Your task to perform on an android device: Is it going to rain today? Image 0: 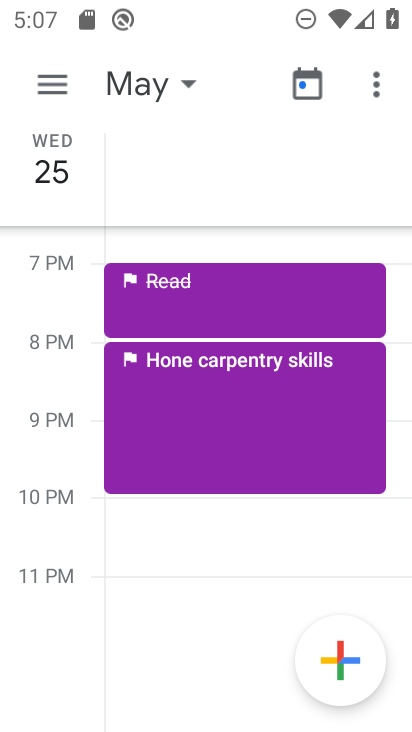
Step 0: press back button
Your task to perform on an android device: Is it going to rain today? Image 1: 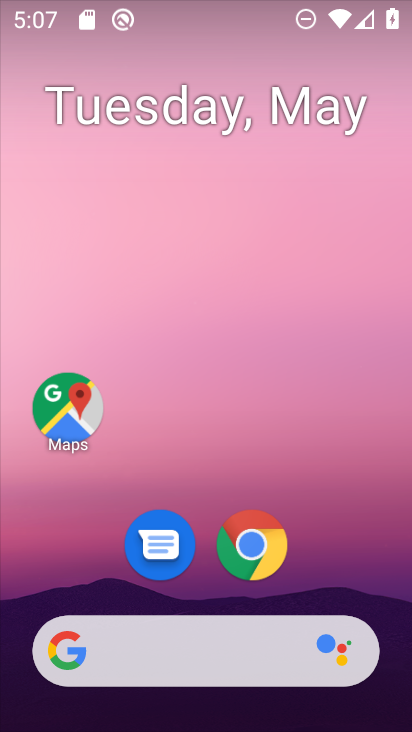
Step 1: drag from (351, 490) to (248, 22)
Your task to perform on an android device: Is it going to rain today? Image 2: 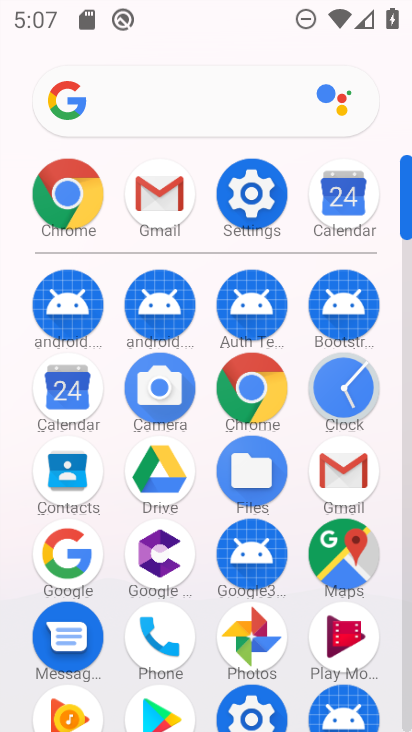
Step 2: drag from (13, 553) to (13, 238)
Your task to perform on an android device: Is it going to rain today? Image 3: 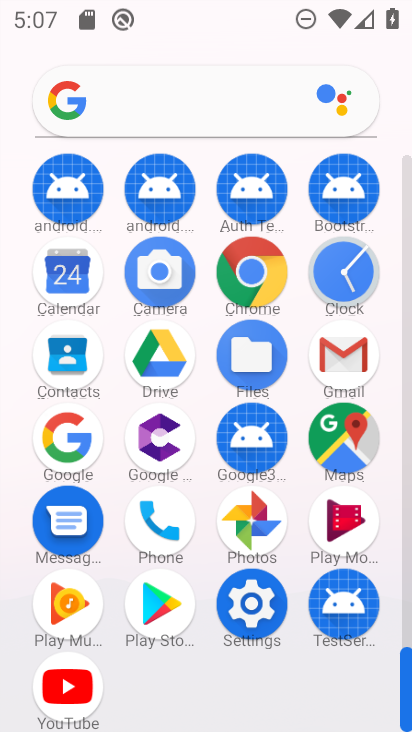
Step 3: click (249, 255)
Your task to perform on an android device: Is it going to rain today? Image 4: 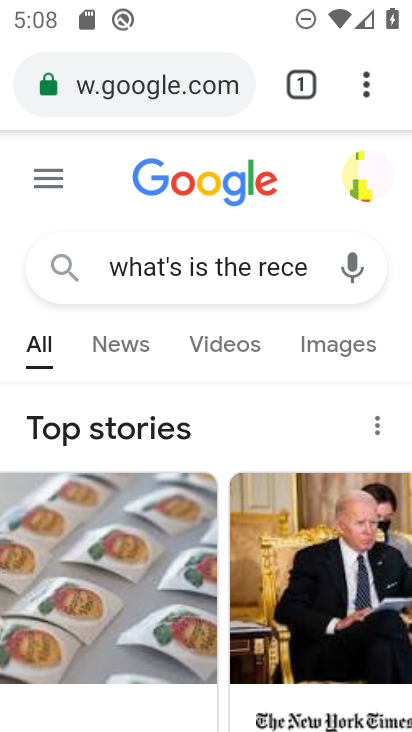
Step 4: click (163, 77)
Your task to perform on an android device: Is it going to rain today? Image 5: 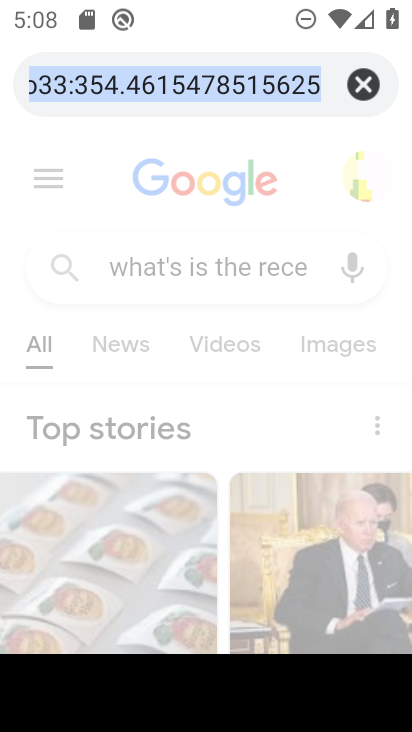
Step 5: click (364, 73)
Your task to perform on an android device: Is it going to rain today? Image 6: 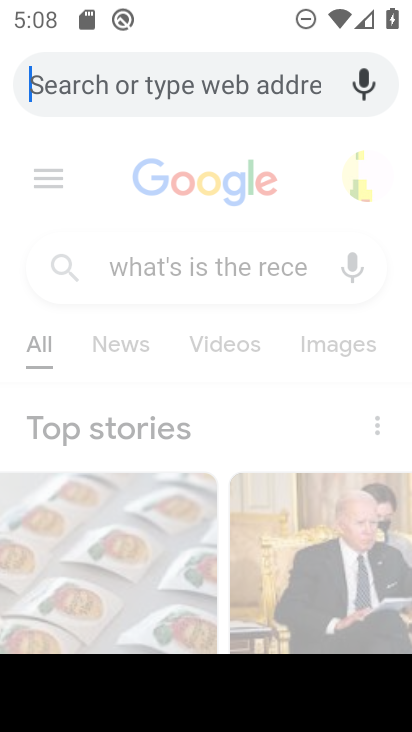
Step 6: type "Is it going to rain today?"
Your task to perform on an android device: Is it going to rain today? Image 7: 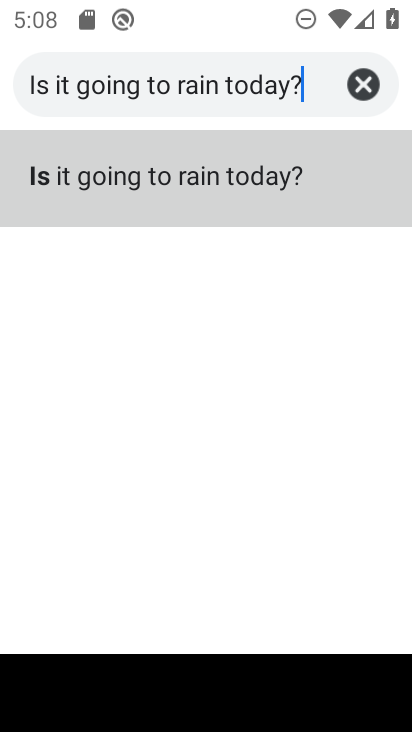
Step 7: type ""
Your task to perform on an android device: Is it going to rain today? Image 8: 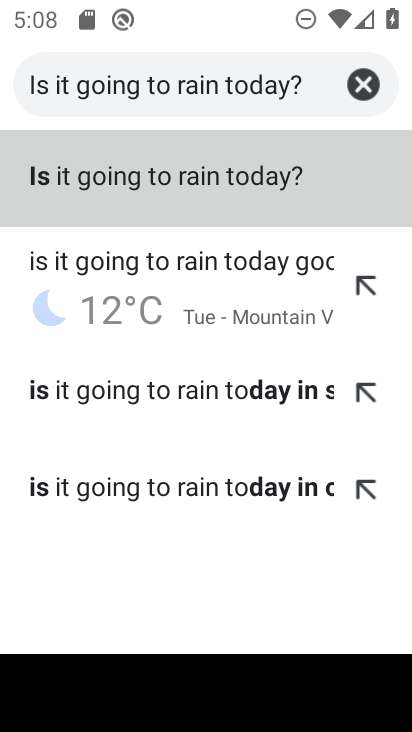
Step 8: click (211, 253)
Your task to perform on an android device: Is it going to rain today? Image 9: 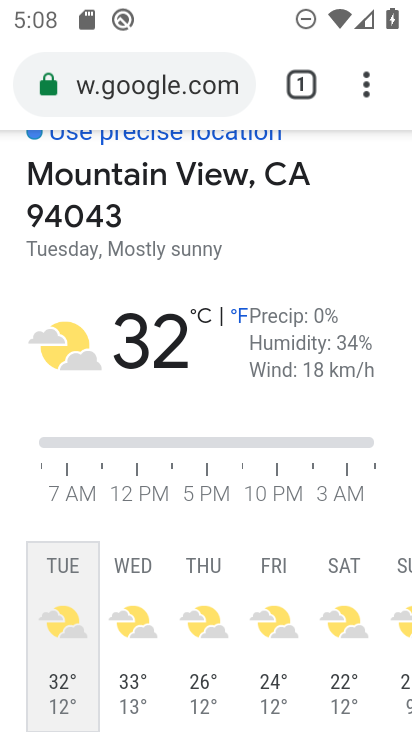
Step 9: task complete